Your task to perform on an android device: Search for sushi restaurants on Maps Image 0: 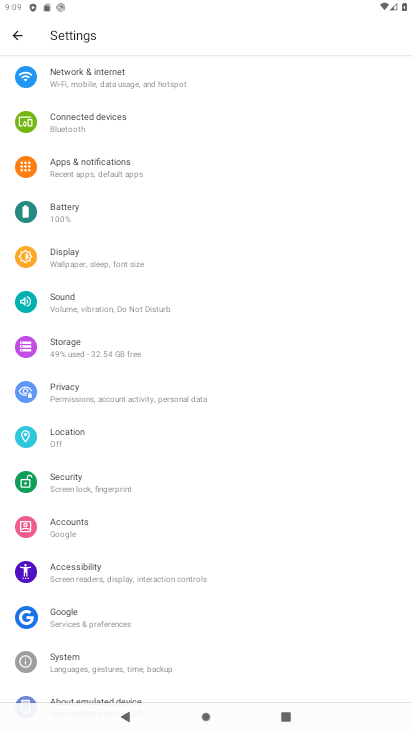
Step 0: press home button
Your task to perform on an android device: Search for sushi restaurants on Maps Image 1: 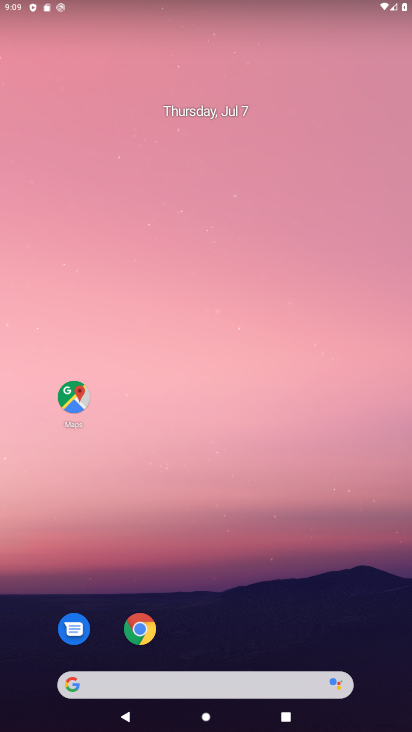
Step 1: drag from (261, 579) to (159, 102)
Your task to perform on an android device: Search for sushi restaurants on Maps Image 2: 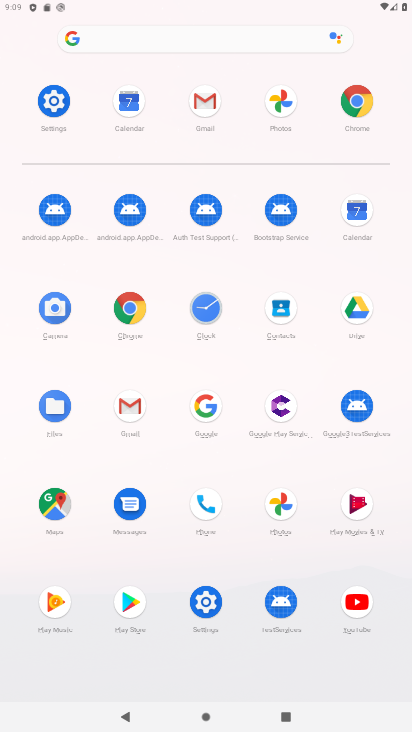
Step 2: click (53, 502)
Your task to perform on an android device: Search for sushi restaurants on Maps Image 3: 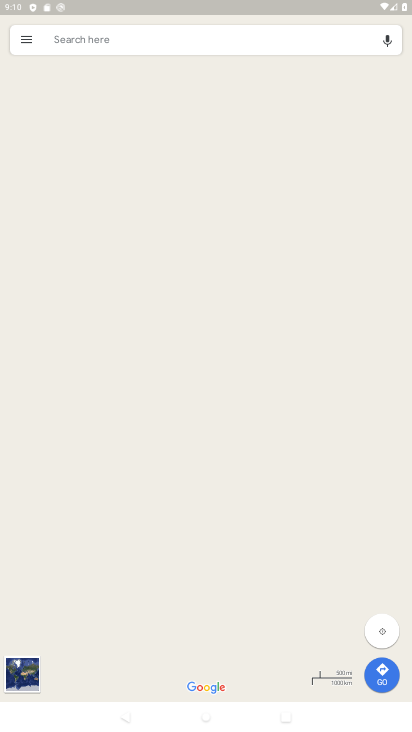
Step 3: click (134, 39)
Your task to perform on an android device: Search for sushi restaurants on Maps Image 4: 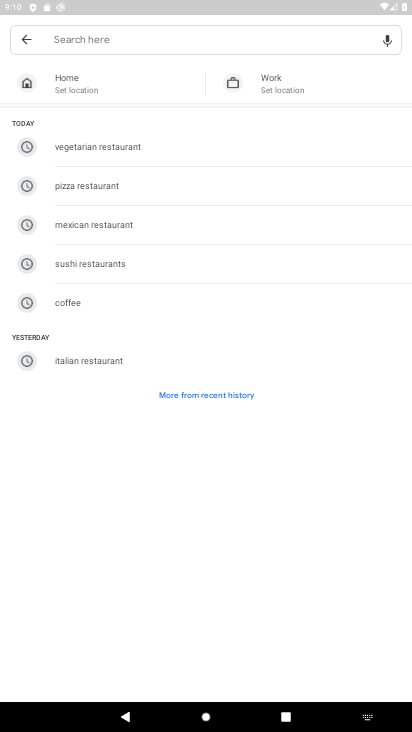
Step 4: type "sushi restaurants"
Your task to perform on an android device: Search for sushi restaurants on Maps Image 5: 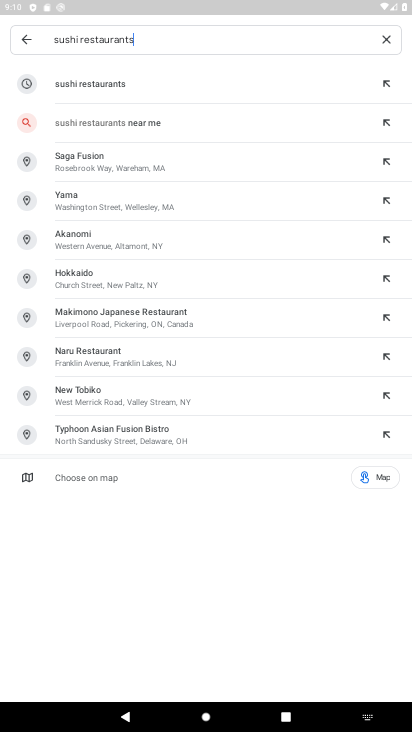
Step 5: click (101, 88)
Your task to perform on an android device: Search for sushi restaurants on Maps Image 6: 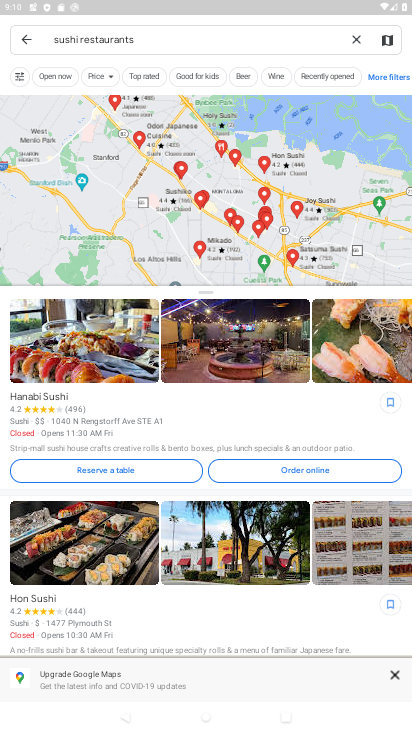
Step 6: task complete